Your task to perform on an android device: Set the phone to "Do not disturb". Image 0: 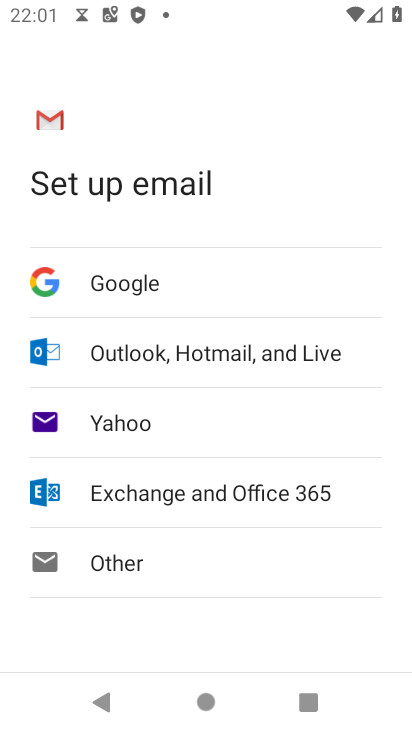
Step 0: press home button
Your task to perform on an android device: Set the phone to "Do not disturb". Image 1: 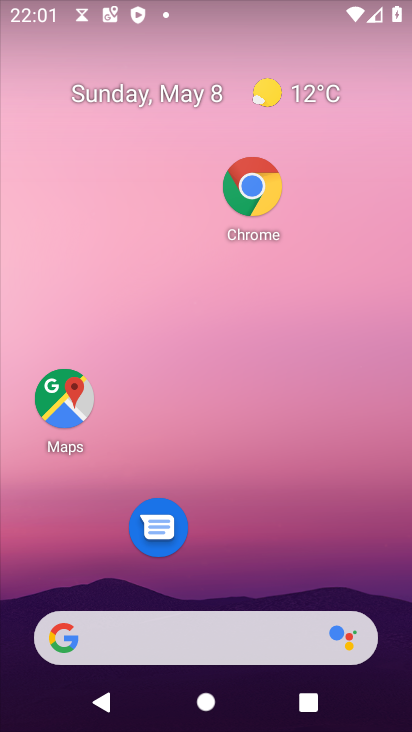
Step 1: drag from (305, 464) to (332, 283)
Your task to perform on an android device: Set the phone to "Do not disturb". Image 2: 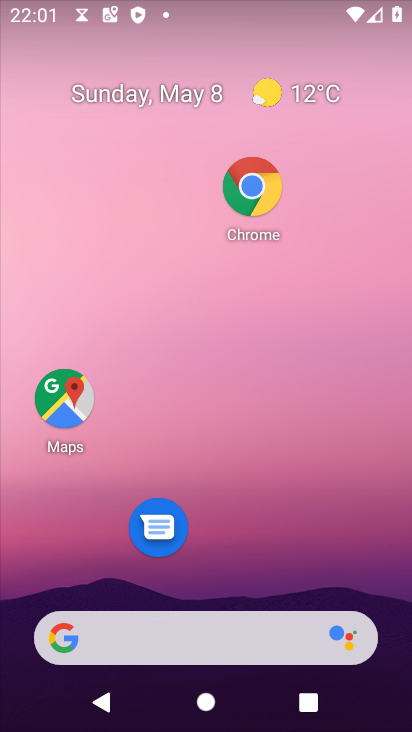
Step 2: drag from (262, 536) to (361, 196)
Your task to perform on an android device: Set the phone to "Do not disturb". Image 3: 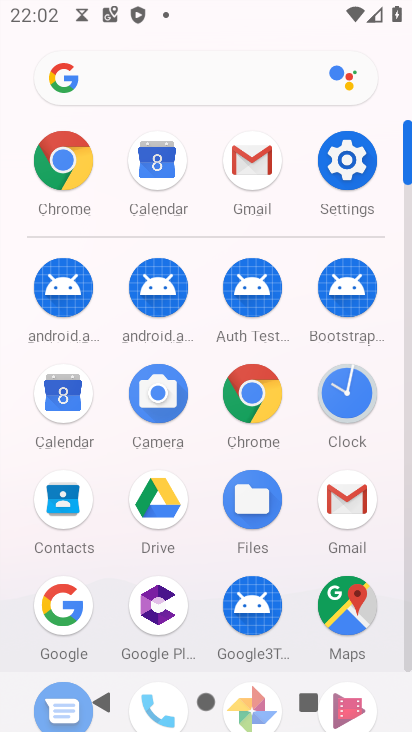
Step 3: drag from (247, 95) to (234, 362)
Your task to perform on an android device: Set the phone to "Do not disturb". Image 4: 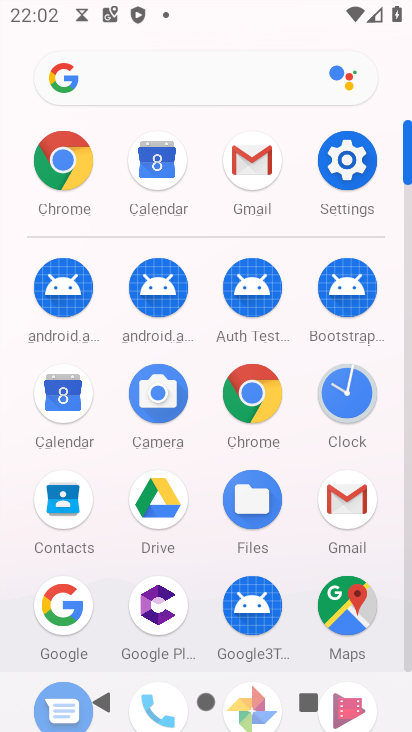
Step 4: drag from (192, 39) to (180, 210)
Your task to perform on an android device: Set the phone to "Do not disturb". Image 5: 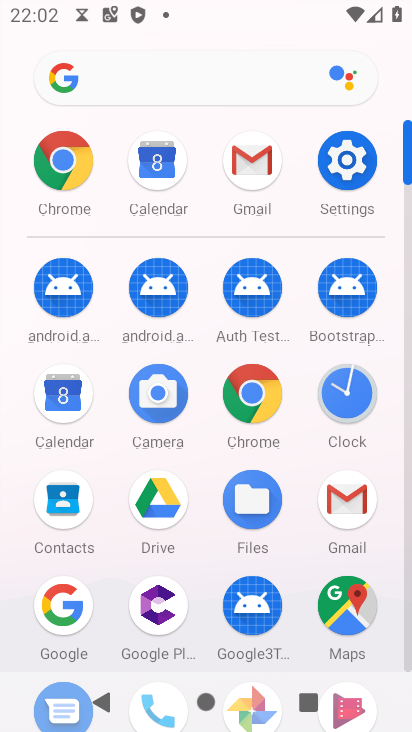
Step 5: drag from (161, 5) to (148, 315)
Your task to perform on an android device: Set the phone to "Do not disturb". Image 6: 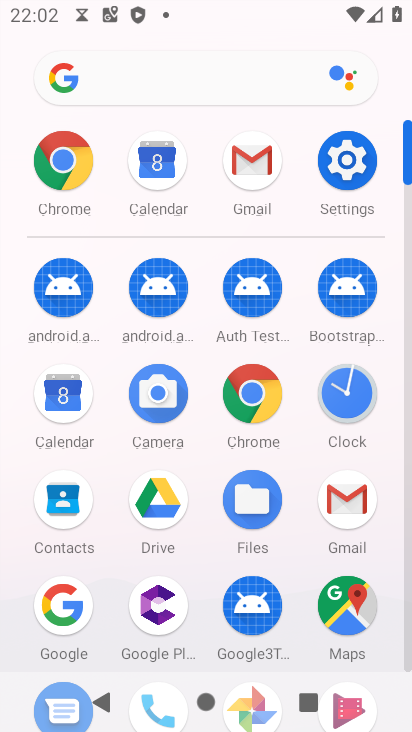
Step 6: drag from (238, 14) to (242, 417)
Your task to perform on an android device: Set the phone to "Do not disturb". Image 7: 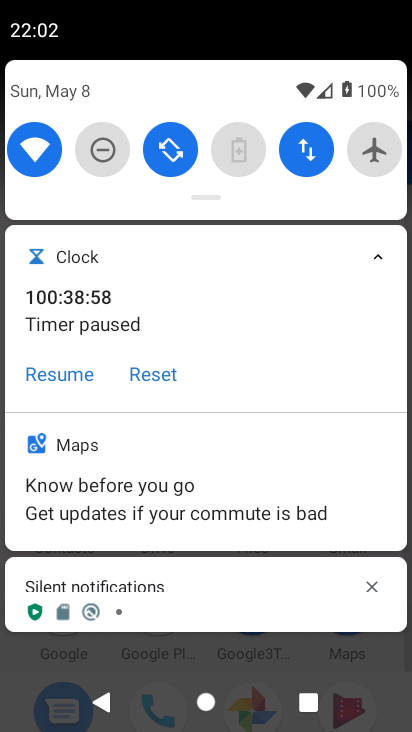
Step 7: click (102, 150)
Your task to perform on an android device: Set the phone to "Do not disturb". Image 8: 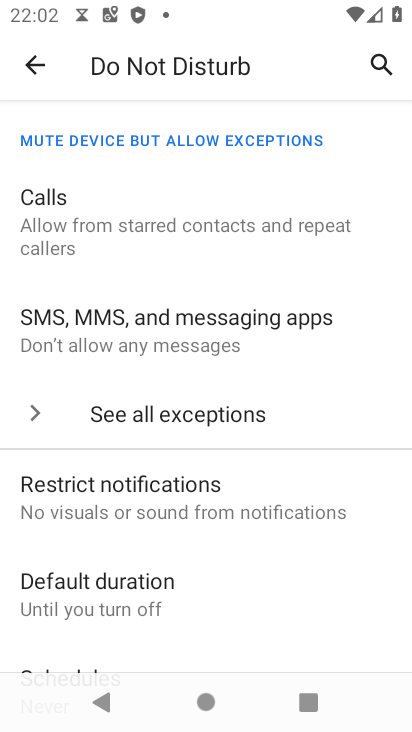
Step 8: drag from (227, 602) to (269, 253)
Your task to perform on an android device: Set the phone to "Do not disturb". Image 9: 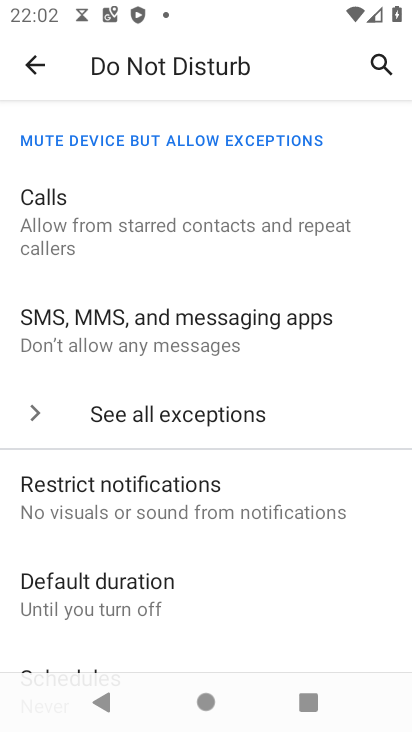
Step 9: drag from (207, 600) to (280, 166)
Your task to perform on an android device: Set the phone to "Do not disturb". Image 10: 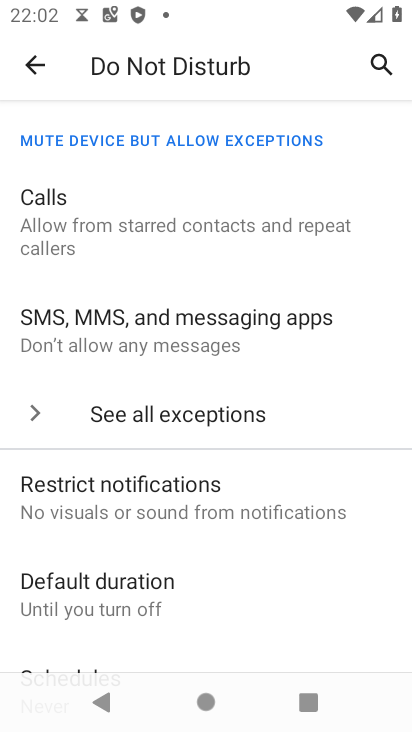
Step 10: drag from (244, 231) to (193, 306)
Your task to perform on an android device: Set the phone to "Do not disturb". Image 11: 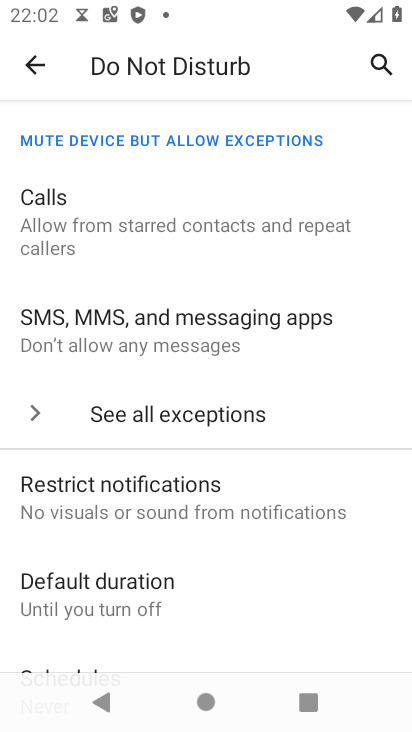
Step 11: drag from (200, 468) to (258, 246)
Your task to perform on an android device: Set the phone to "Do not disturb". Image 12: 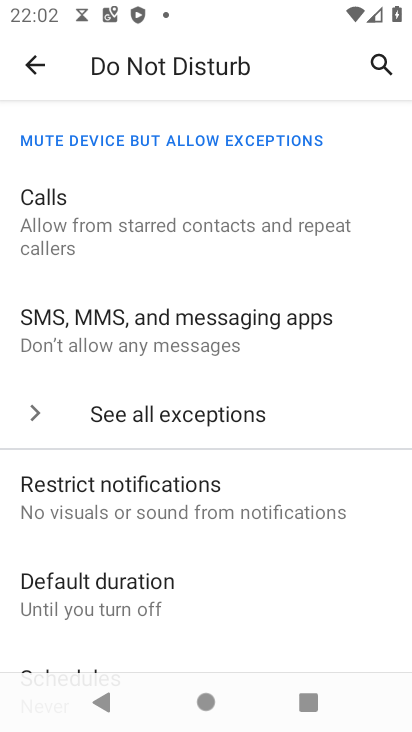
Step 12: drag from (242, 573) to (254, 269)
Your task to perform on an android device: Set the phone to "Do not disturb". Image 13: 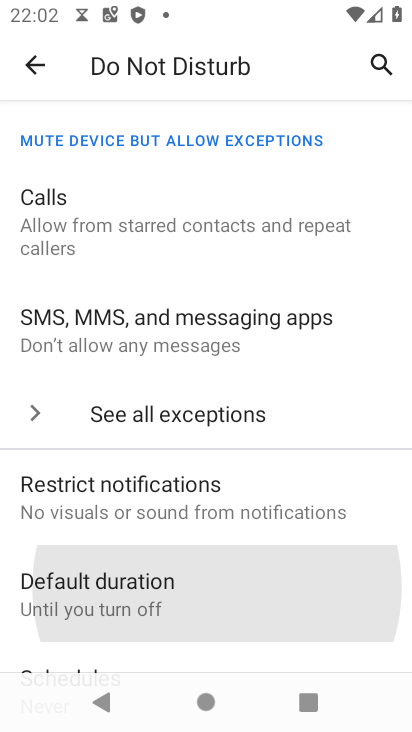
Step 13: drag from (192, 562) to (215, 214)
Your task to perform on an android device: Set the phone to "Do not disturb". Image 14: 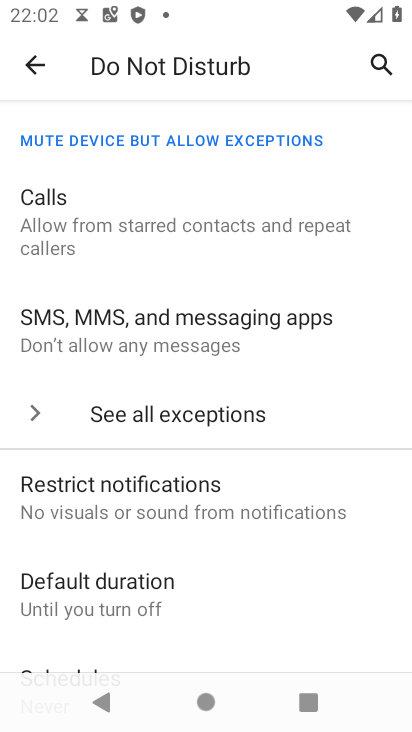
Step 14: drag from (189, 492) to (223, 237)
Your task to perform on an android device: Set the phone to "Do not disturb". Image 15: 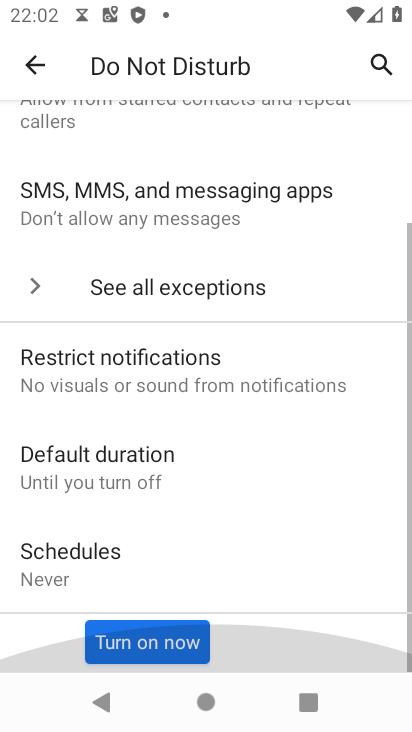
Step 15: drag from (227, 547) to (291, 257)
Your task to perform on an android device: Set the phone to "Do not disturb". Image 16: 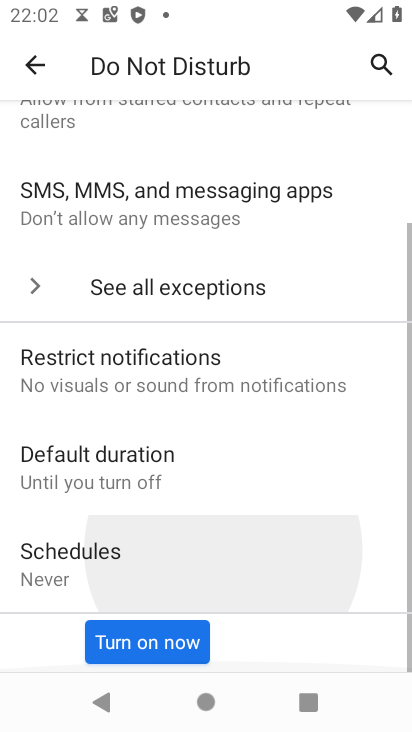
Step 16: drag from (295, 546) to (301, 362)
Your task to perform on an android device: Set the phone to "Do not disturb". Image 17: 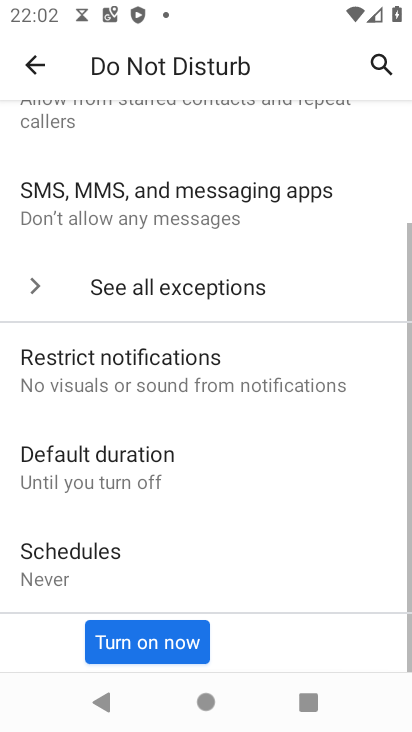
Step 17: click (161, 650)
Your task to perform on an android device: Set the phone to "Do not disturb". Image 18: 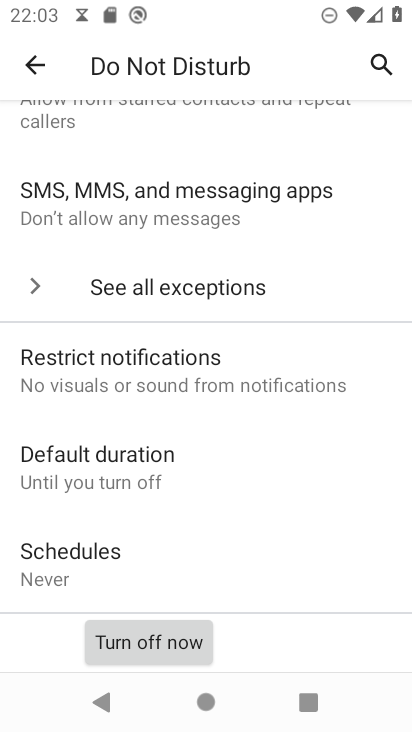
Step 18: task complete